Your task to perform on an android device: turn off translation in the chrome app Image 0: 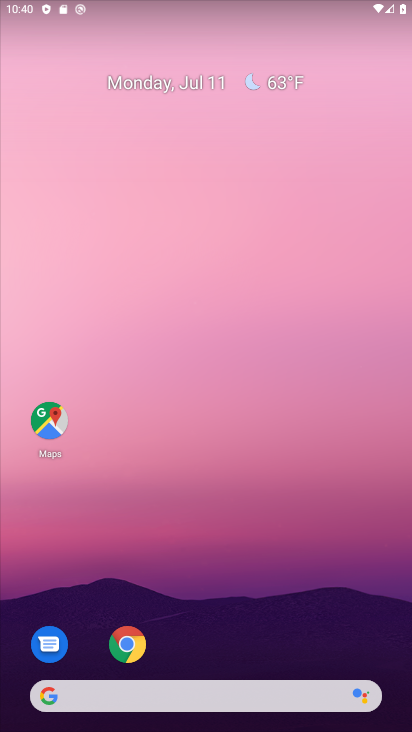
Step 0: drag from (188, 683) to (177, 0)
Your task to perform on an android device: turn off translation in the chrome app Image 1: 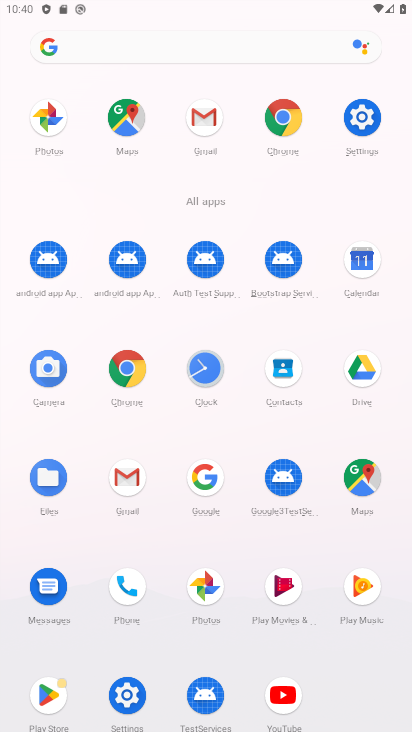
Step 1: click (298, 127)
Your task to perform on an android device: turn off translation in the chrome app Image 2: 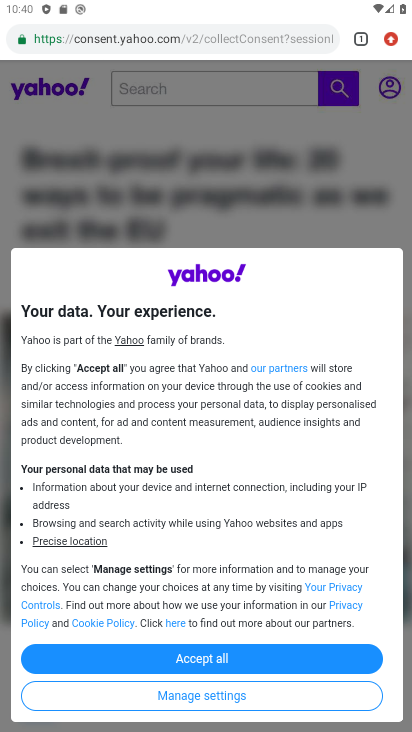
Step 2: drag from (392, 29) to (264, 514)
Your task to perform on an android device: turn off translation in the chrome app Image 3: 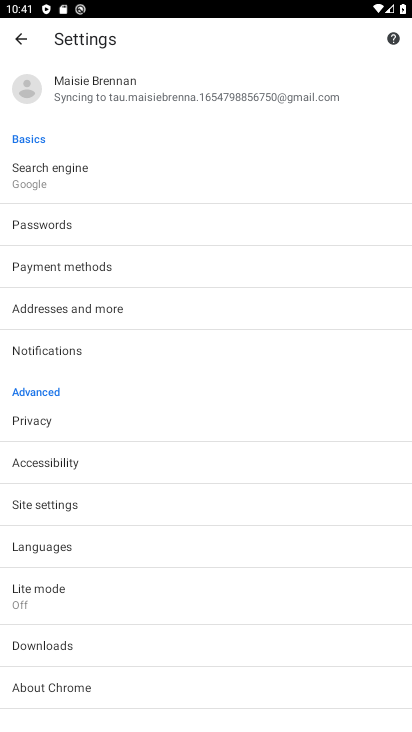
Step 3: click (72, 544)
Your task to perform on an android device: turn off translation in the chrome app Image 4: 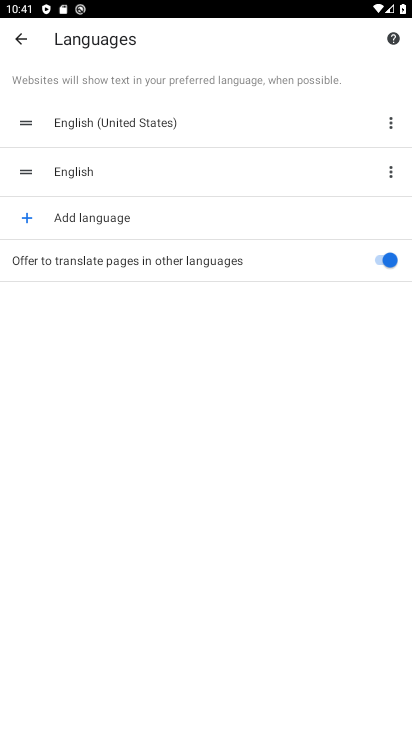
Step 4: click (388, 260)
Your task to perform on an android device: turn off translation in the chrome app Image 5: 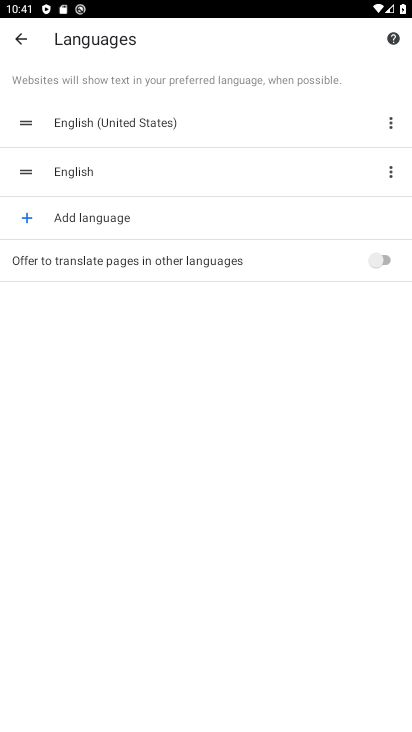
Step 5: task complete